Your task to perform on an android device: Search for pizza restaurants on Maps Image 0: 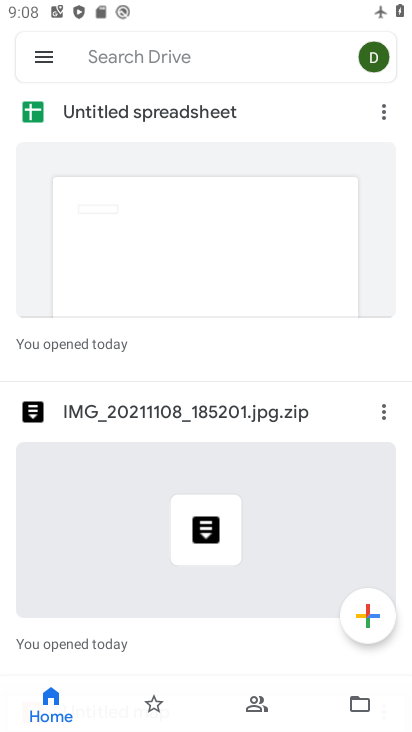
Step 0: press home button
Your task to perform on an android device: Search for pizza restaurants on Maps Image 1: 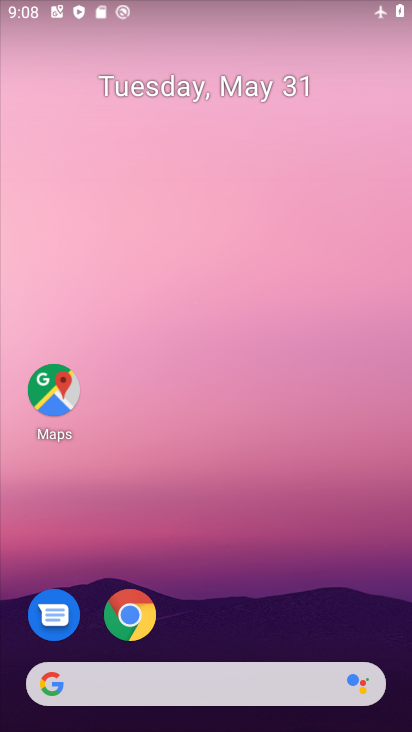
Step 1: click (56, 393)
Your task to perform on an android device: Search for pizza restaurants on Maps Image 2: 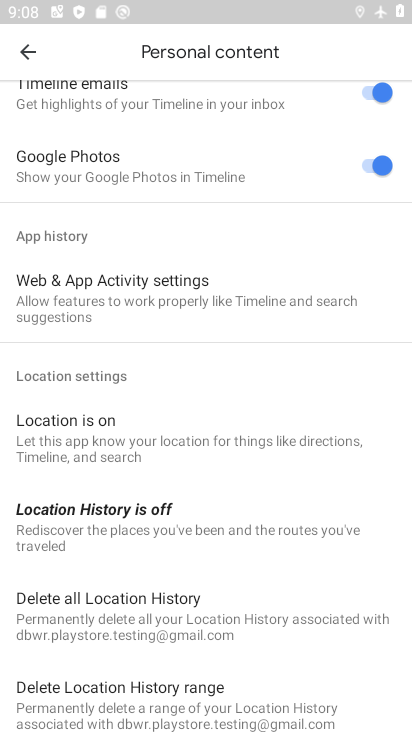
Step 2: press back button
Your task to perform on an android device: Search for pizza restaurants on Maps Image 3: 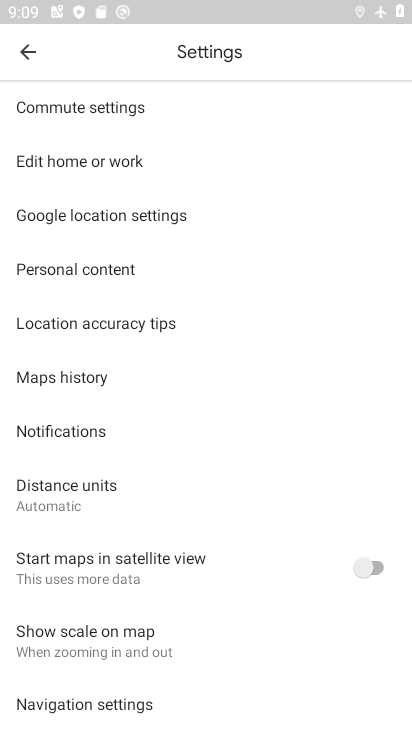
Step 3: press back button
Your task to perform on an android device: Search for pizza restaurants on Maps Image 4: 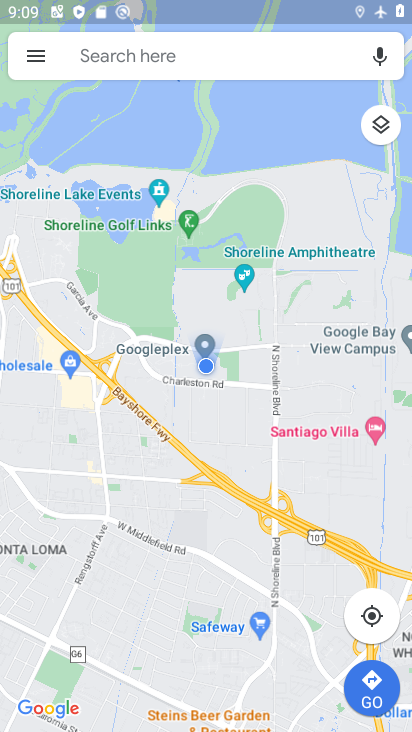
Step 4: click (129, 55)
Your task to perform on an android device: Search for pizza restaurants on Maps Image 5: 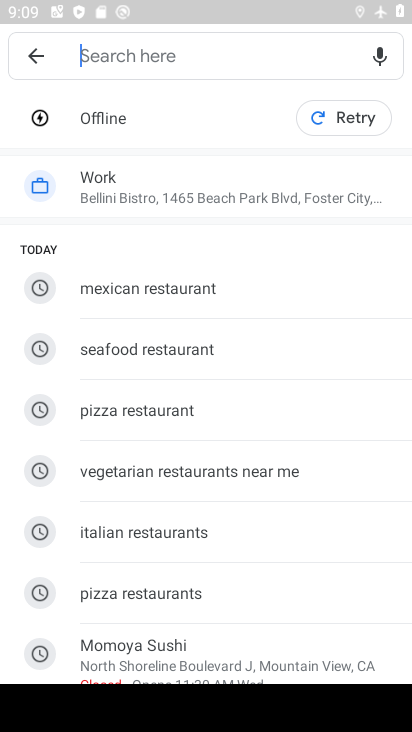
Step 5: type "pizza restaurants"
Your task to perform on an android device: Search for pizza restaurants on Maps Image 6: 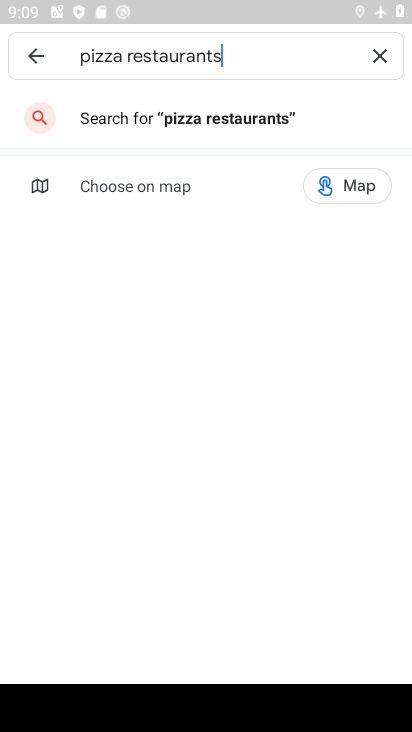
Step 6: click (209, 118)
Your task to perform on an android device: Search for pizza restaurants on Maps Image 7: 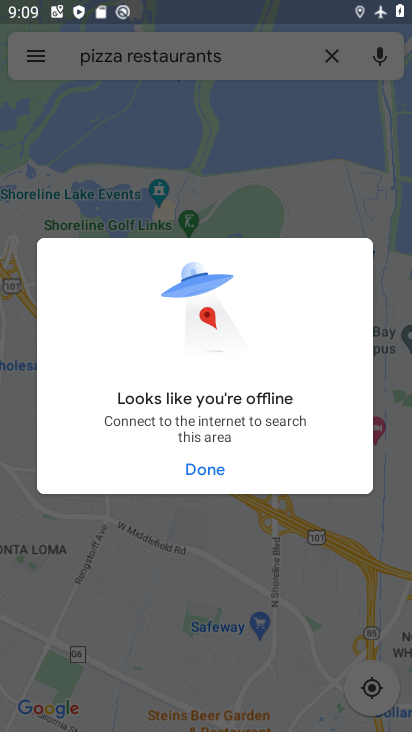
Step 7: task complete